Your task to perform on an android device: Turn off the flashlight Image 0: 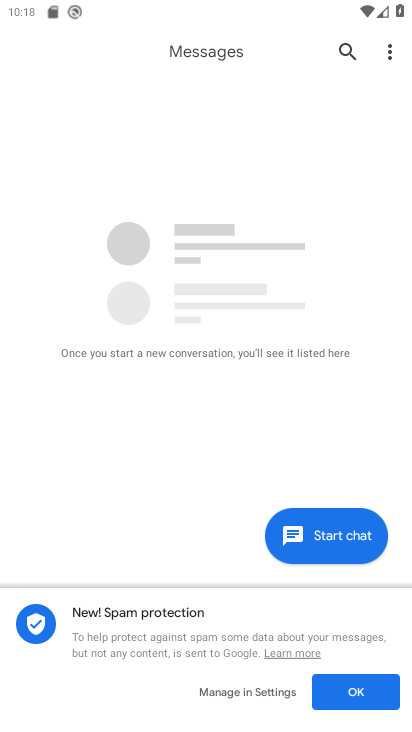
Step 0: press home button
Your task to perform on an android device: Turn off the flashlight Image 1: 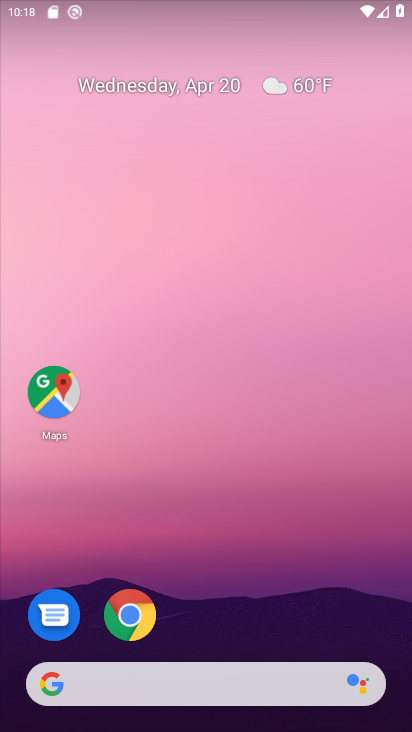
Step 1: drag from (384, 585) to (386, 122)
Your task to perform on an android device: Turn off the flashlight Image 2: 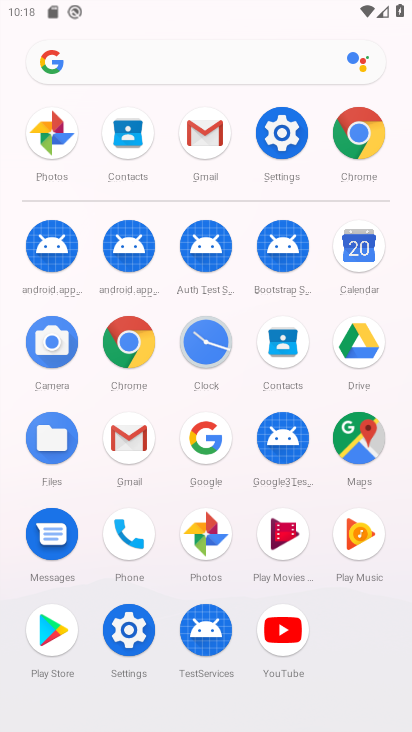
Step 2: click (280, 139)
Your task to perform on an android device: Turn off the flashlight Image 3: 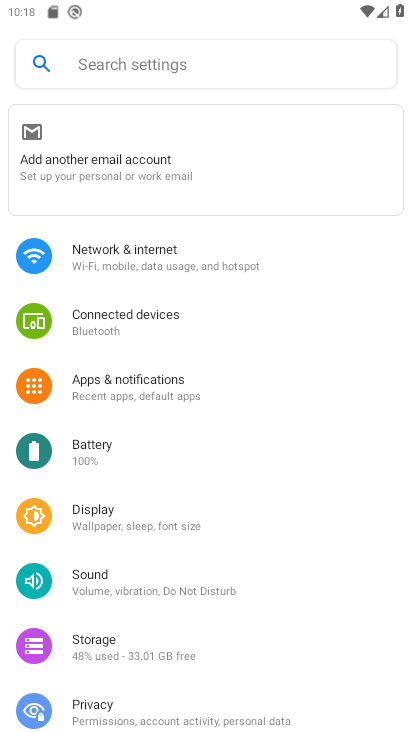
Step 3: click (176, 65)
Your task to perform on an android device: Turn off the flashlight Image 4: 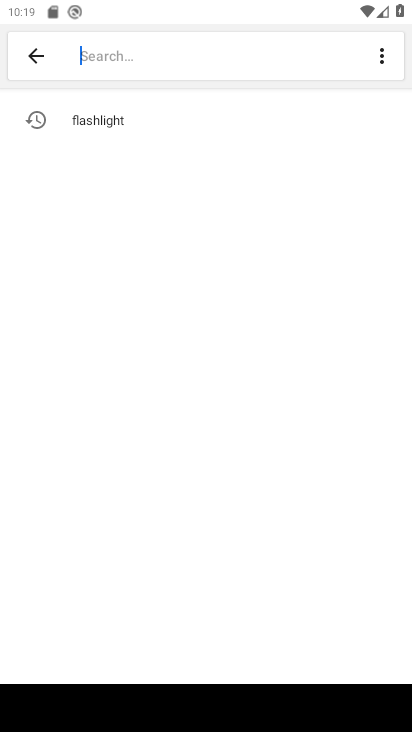
Step 4: click (108, 116)
Your task to perform on an android device: Turn off the flashlight Image 5: 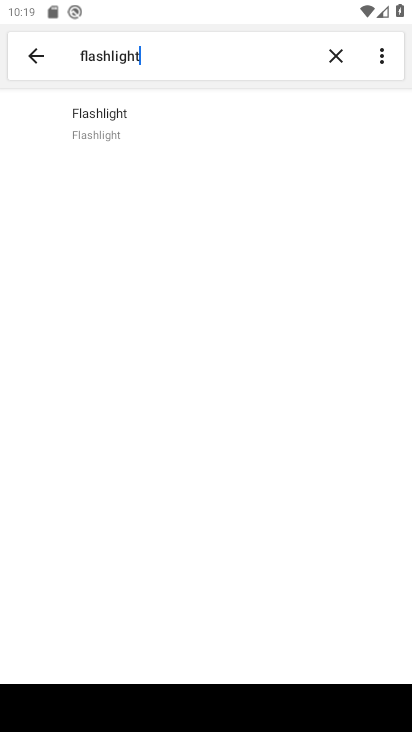
Step 5: click (101, 112)
Your task to perform on an android device: Turn off the flashlight Image 6: 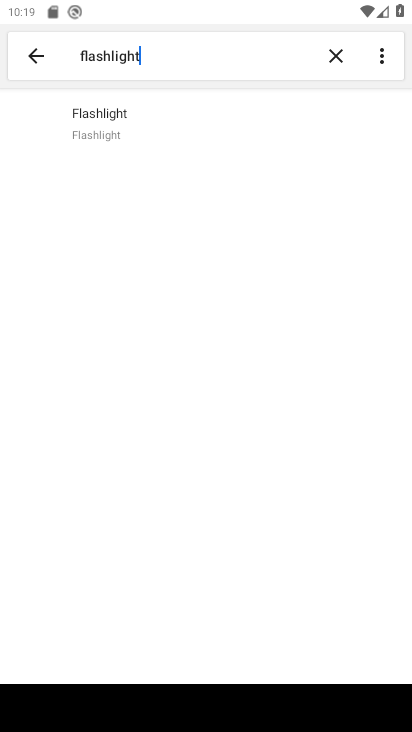
Step 6: task complete